Your task to perform on an android device: change the clock display to analog Image 0: 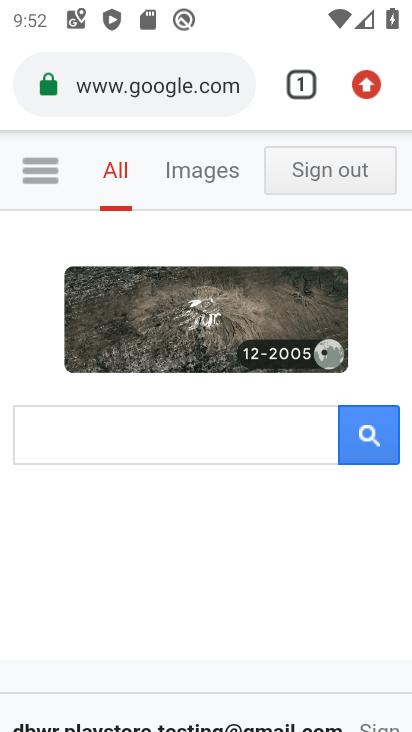
Step 0: press back button
Your task to perform on an android device: change the clock display to analog Image 1: 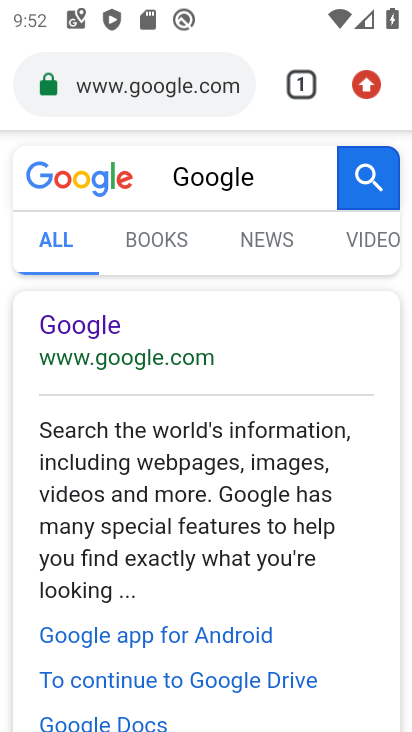
Step 1: press home button
Your task to perform on an android device: change the clock display to analog Image 2: 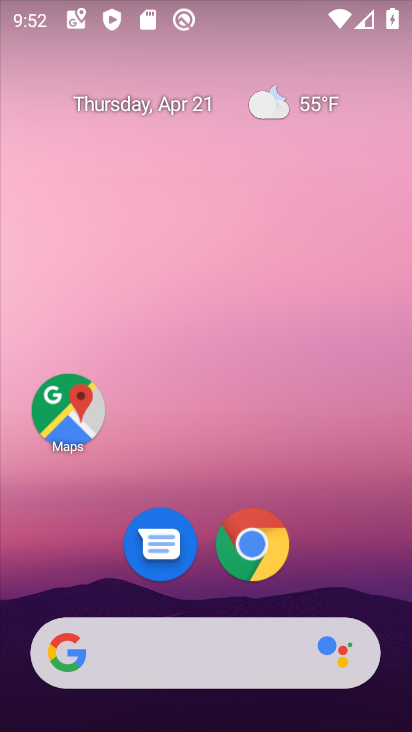
Step 2: drag from (343, 573) to (267, 8)
Your task to perform on an android device: change the clock display to analog Image 3: 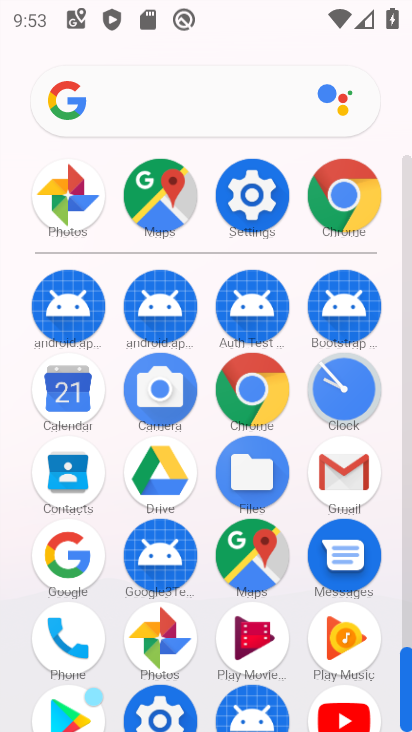
Step 3: drag from (23, 571) to (22, 354)
Your task to perform on an android device: change the clock display to analog Image 4: 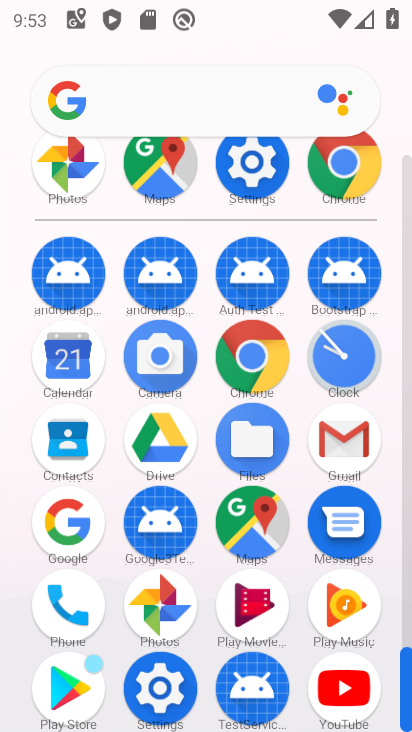
Step 4: click (344, 355)
Your task to perform on an android device: change the clock display to analog Image 5: 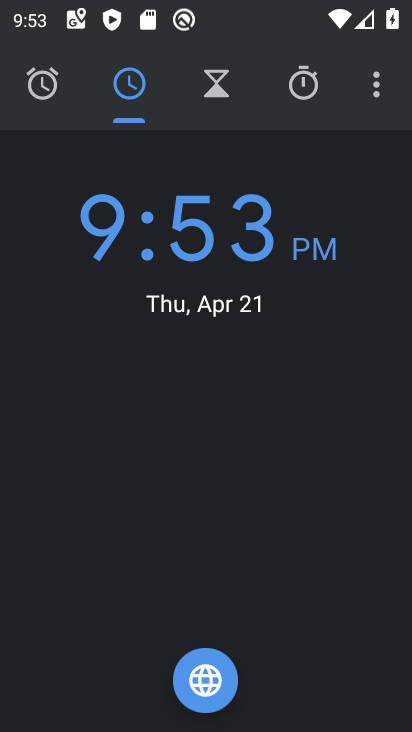
Step 5: click (377, 88)
Your task to perform on an android device: change the clock display to analog Image 6: 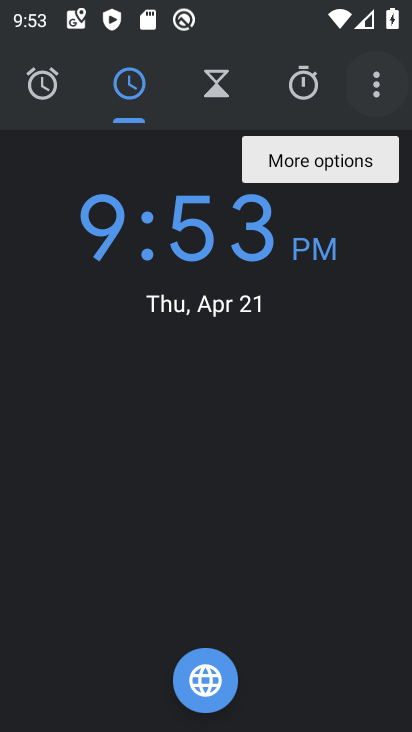
Step 6: click (372, 85)
Your task to perform on an android device: change the clock display to analog Image 7: 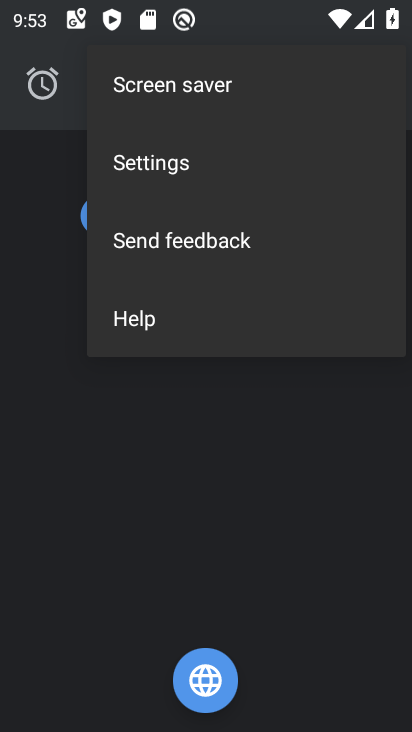
Step 7: click (135, 151)
Your task to perform on an android device: change the clock display to analog Image 8: 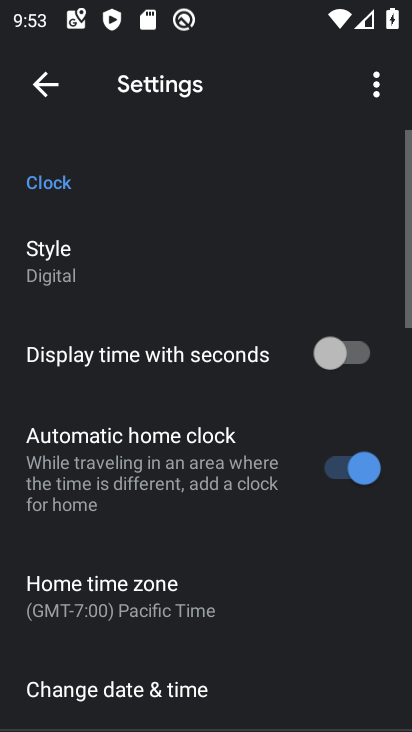
Step 8: drag from (187, 498) to (188, 203)
Your task to perform on an android device: change the clock display to analog Image 9: 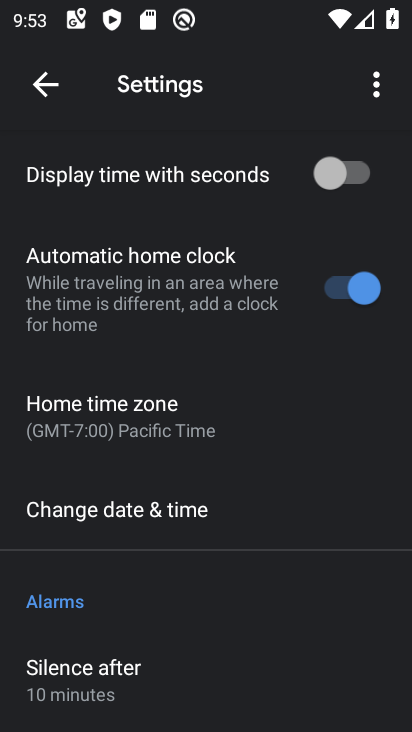
Step 9: drag from (200, 537) to (191, 175)
Your task to perform on an android device: change the clock display to analog Image 10: 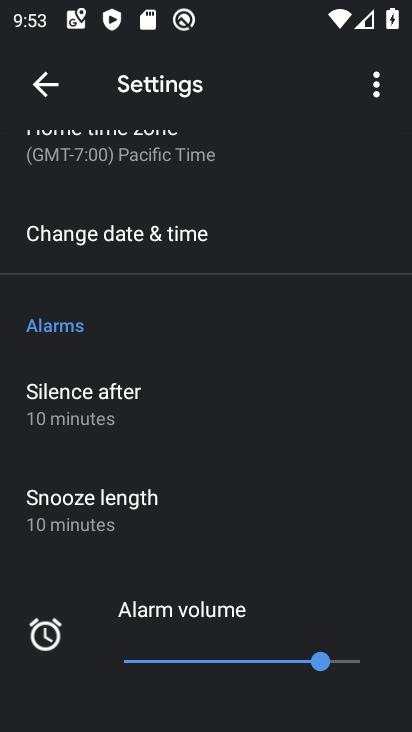
Step 10: drag from (196, 554) to (205, 155)
Your task to perform on an android device: change the clock display to analog Image 11: 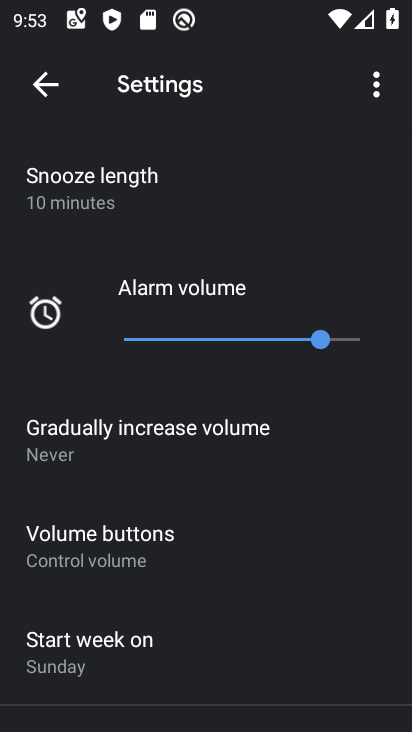
Step 11: drag from (188, 592) to (197, 178)
Your task to perform on an android device: change the clock display to analog Image 12: 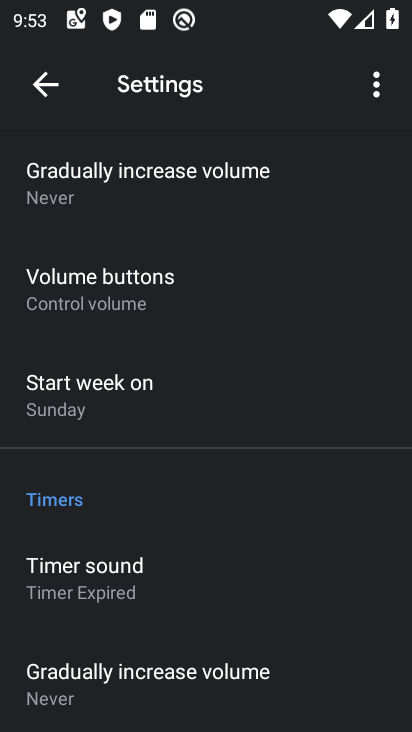
Step 12: drag from (177, 550) to (189, 210)
Your task to perform on an android device: change the clock display to analog Image 13: 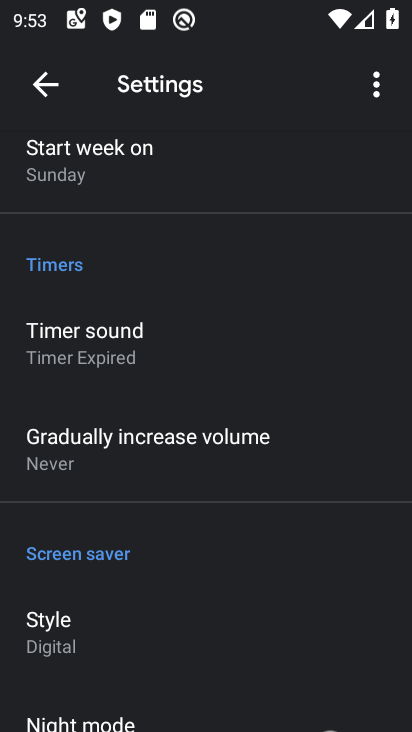
Step 13: drag from (202, 515) to (210, 300)
Your task to perform on an android device: change the clock display to analog Image 14: 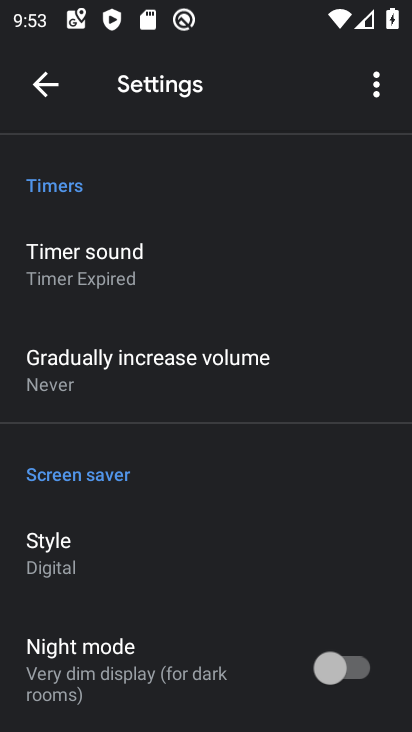
Step 14: drag from (198, 618) to (201, 211)
Your task to perform on an android device: change the clock display to analog Image 15: 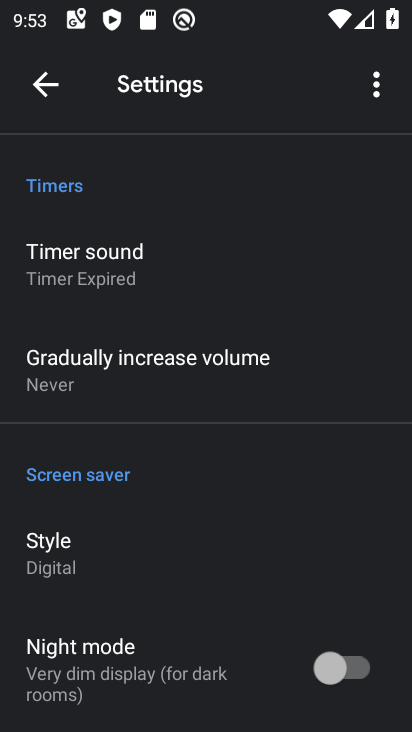
Step 15: click (84, 546)
Your task to perform on an android device: change the clock display to analog Image 16: 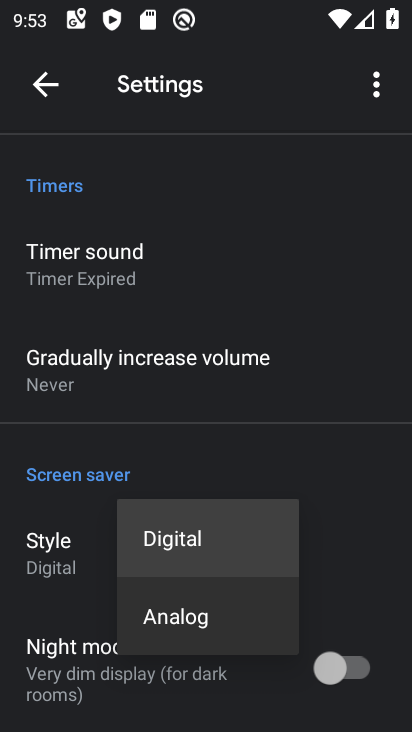
Step 16: click (194, 616)
Your task to perform on an android device: change the clock display to analog Image 17: 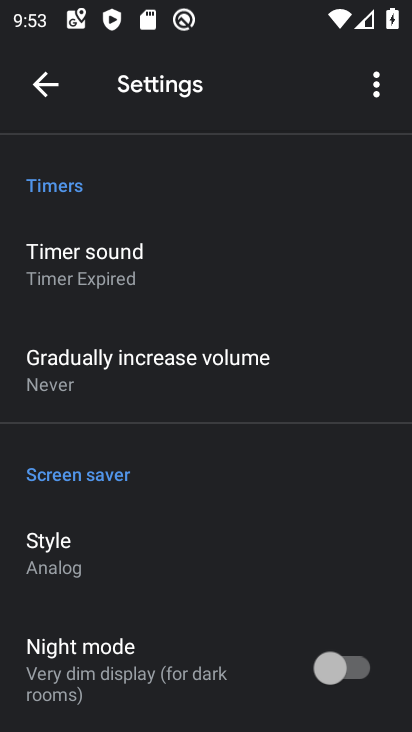
Step 17: task complete